Your task to perform on an android device: open app "Lyft - Rideshare, Bikes, Scooters & Transit" (install if not already installed), go to login, and select forgot password Image 0: 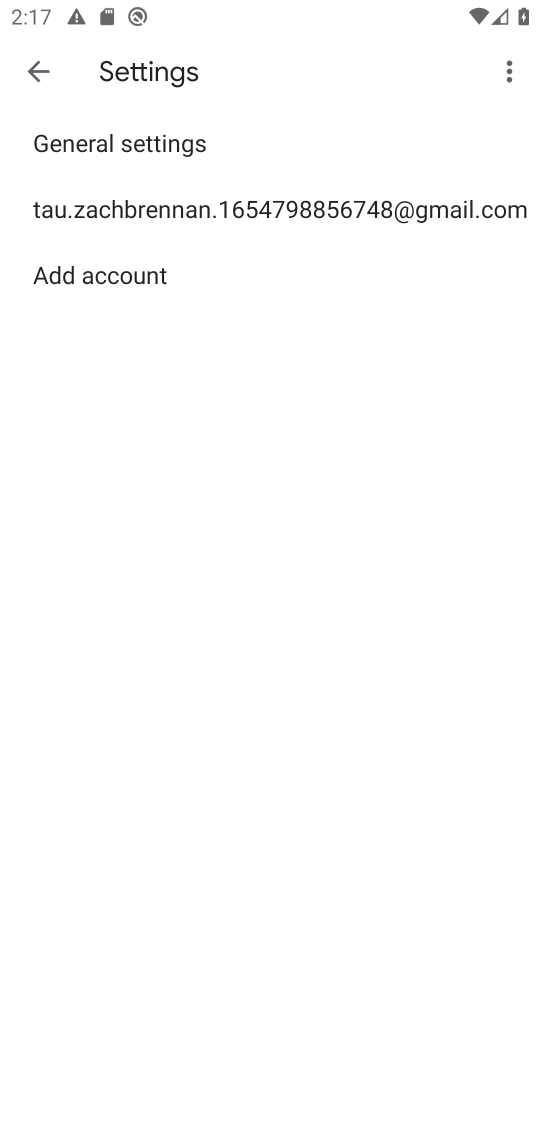
Step 0: press home button
Your task to perform on an android device: open app "Lyft - Rideshare, Bikes, Scooters & Transit" (install if not already installed), go to login, and select forgot password Image 1: 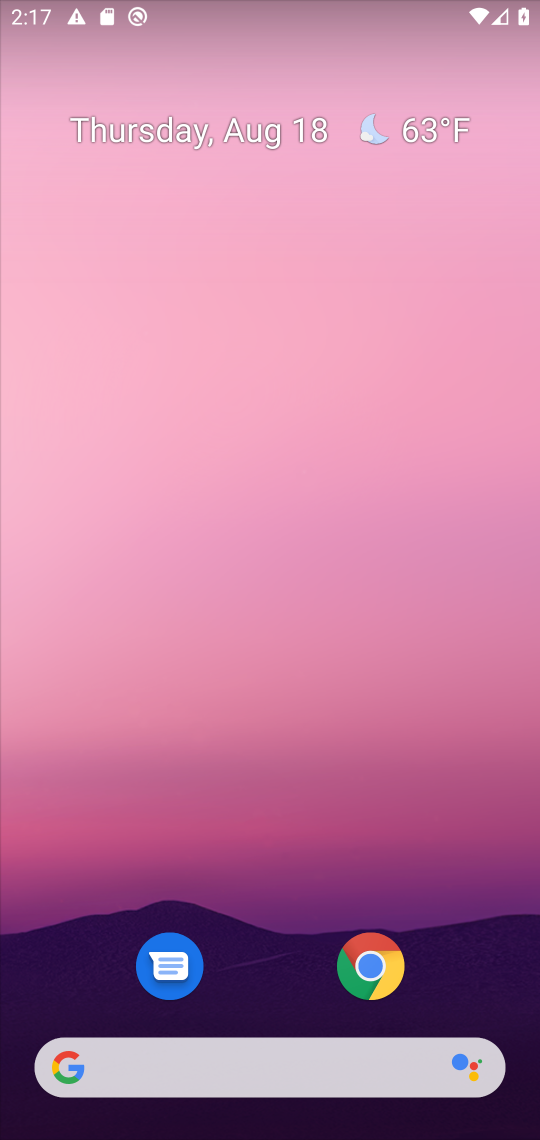
Step 1: drag from (306, 964) to (402, 197)
Your task to perform on an android device: open app "Lyft - Rideshare, Bikes, Scooters & Transit" (install if not already installed), go to login, and select forgot password Image 2: 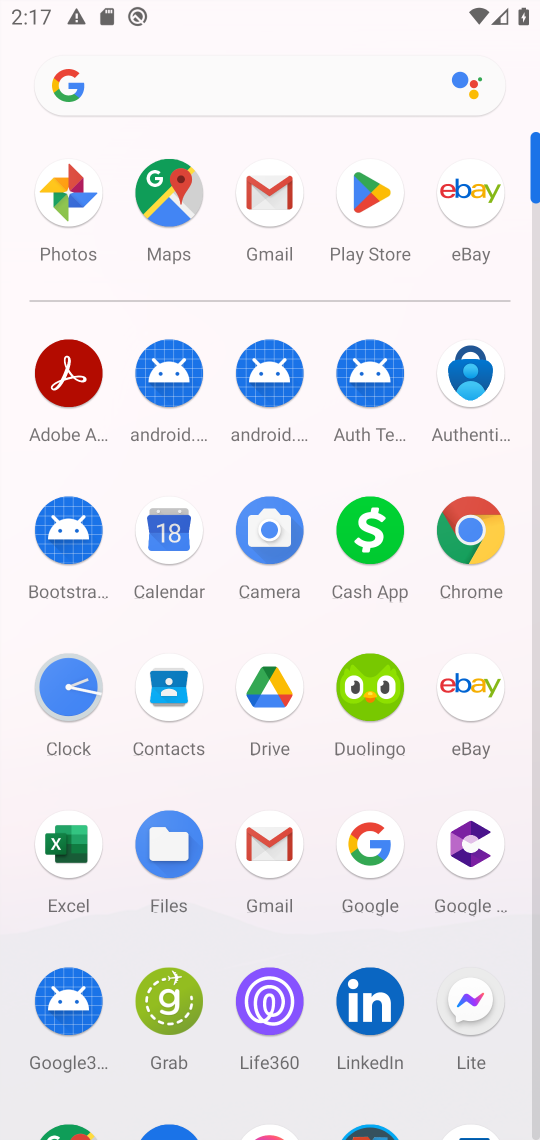
Step 2: click (371, 189)
Your task to perform on an android device: open app "Lyft - Rideshare, Bikes, Scooters & Transit" (install if not already installed), go to login, and select forgot password Image 3: 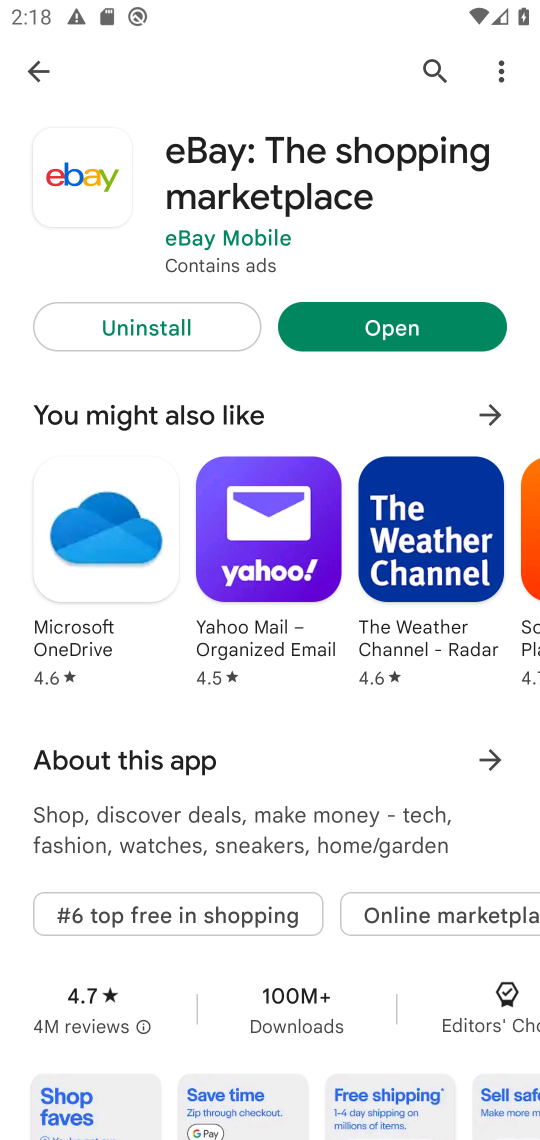
Step 3: click (431, 76)
Your task to perform on an android device: open app "Lyft - Rideshare, Bikes, Scooters & Transit" (install if not already installed), go to login, and select forgot password Image 4: 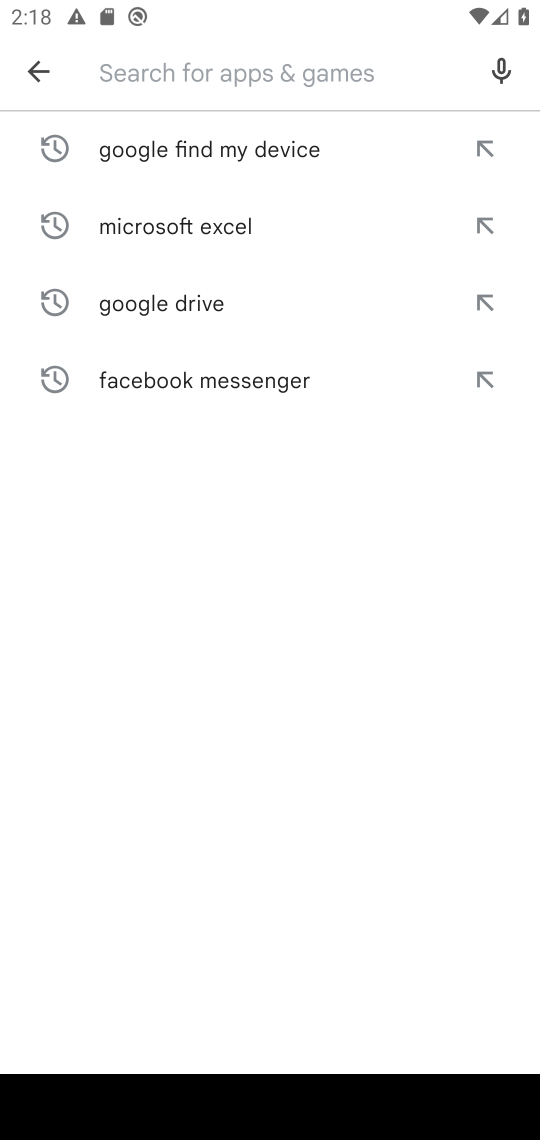
Step 4: type "Lyft"
Your task to perform on an android device: open app "Lyft - Rideshare, Bikes, Scooters & Transit" (install if not already installed), go to login, and select forgot password Image 5: 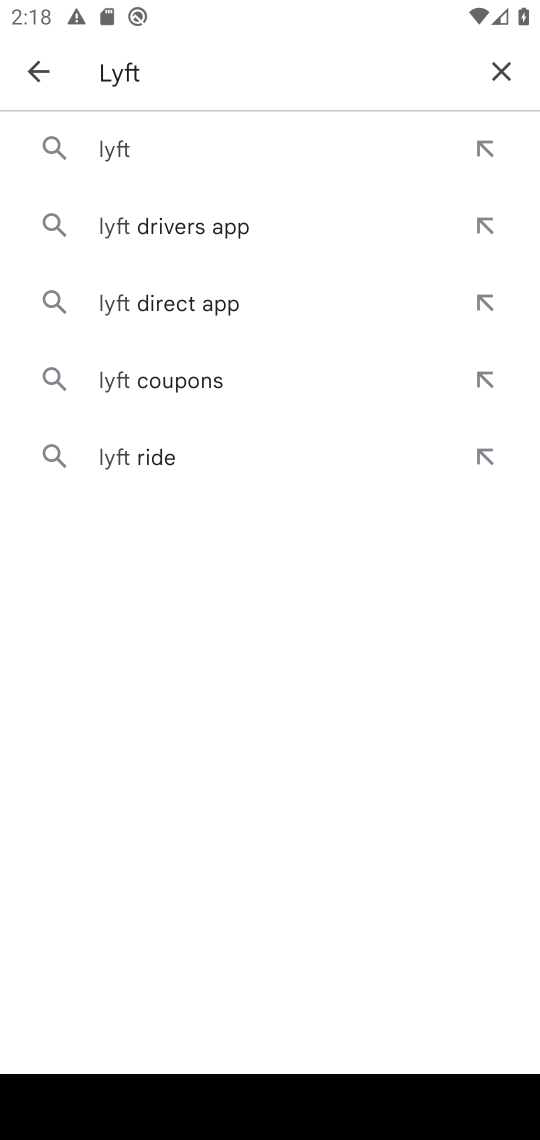
Step 5: click (149, 144)
Your task to perform on an android device: open app "Lyft - Rideshare, Bikes, Scooters & Transit" (install if not already installed), go to login, and select forgot password Image 6: 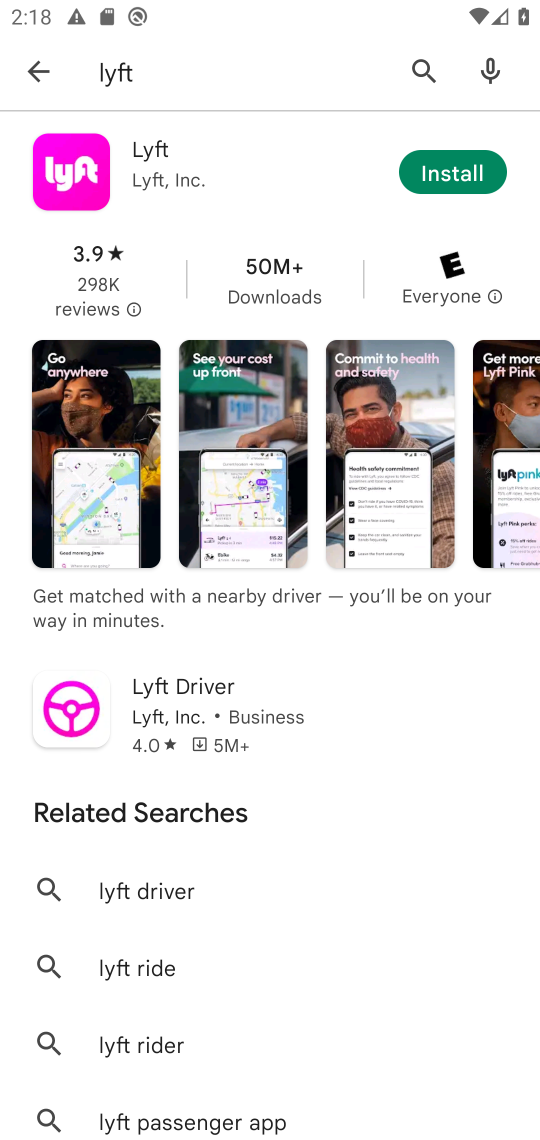
Step 6: click (465, 174)
Your task to perform on an android device: open app "Lyft - Rideshare, Bikes, Scooters & Transit" (install if not already installed), go to login, and select forgot password Image 7: 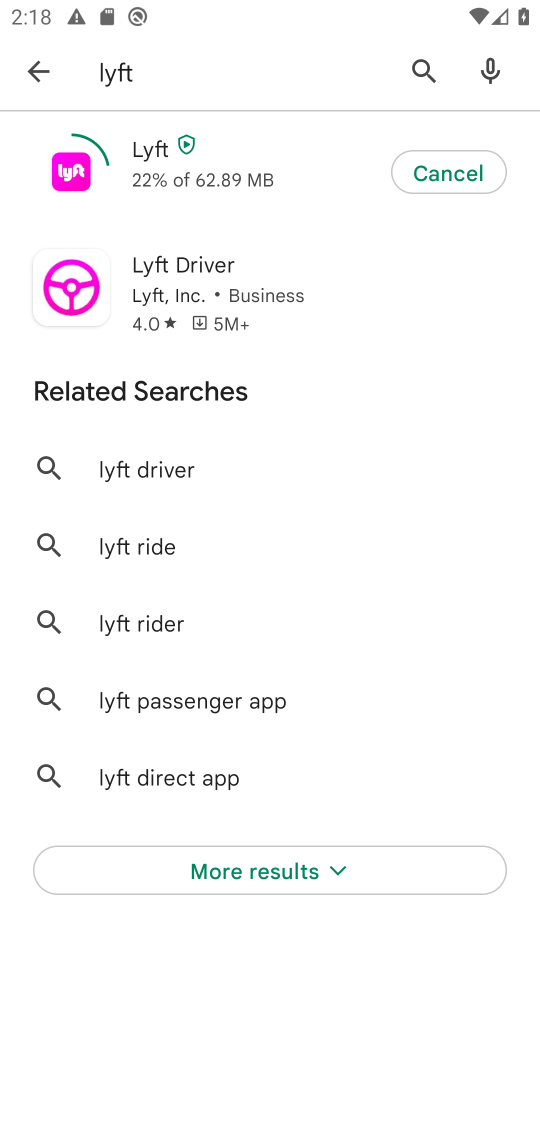
Step 7: click (234, 151)
Your task to perform on an android device: open app "Lyft - Rideshare, Bikes, Scooters & Transit" (install if not already installed), go to login, and select forgot password Image 8: 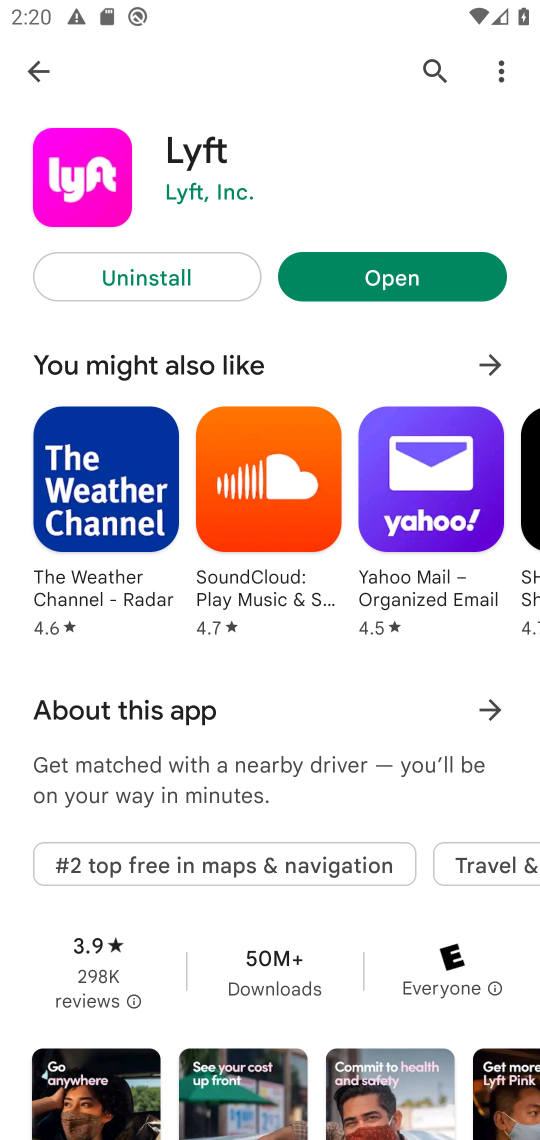
Step 8: click (403, 284)
Your task to perform on an android device: open app "Lyft - Rideshare, Bikes, Scooters & Transit" (install if not already installed), go to login, and select forgot password Image 9: 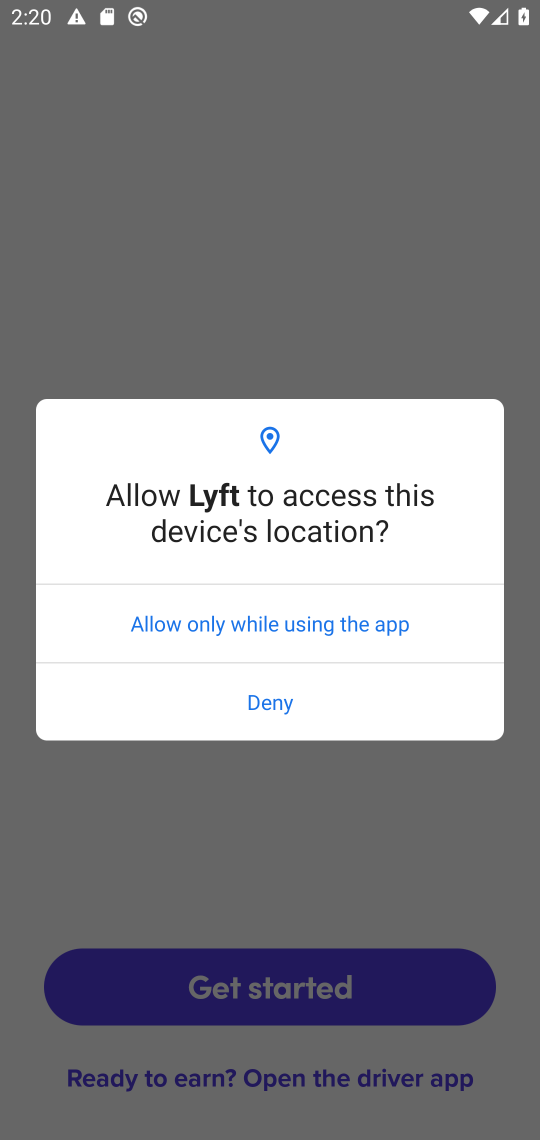
Step 9: click (282, 638)
Your task to perform on an android device: open app "Lyft - Rideshare, Bikes, Scooters & Transit" (install if not already installed), go to login, and select forgot password Image 10: 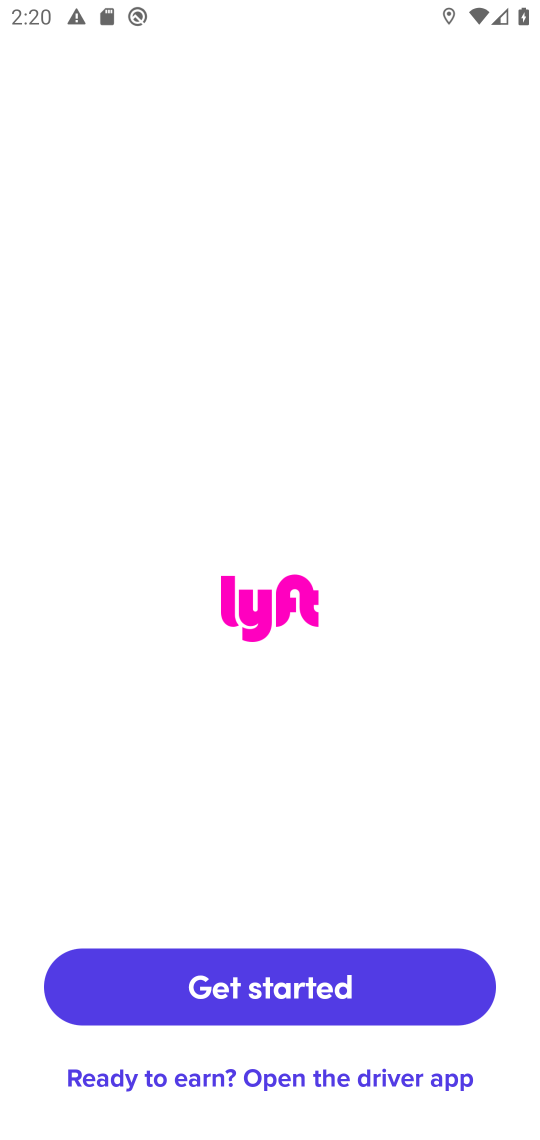
Step 10: click (291, 984)
Your task to perform on an android device: open app "Lyft - Rideshare, Bikes, Scooters & Transit" (install if not already installed), go to login, and select forgot password Image 11: 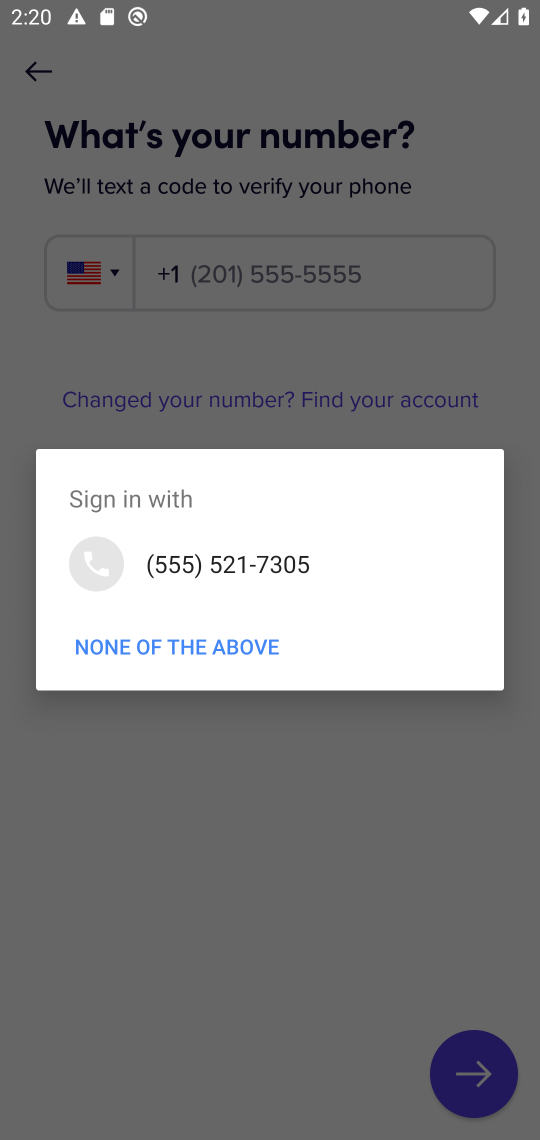
Step 11: task complete